Your task to perform on an android device: visit the assistant section in the google photos Image 0: 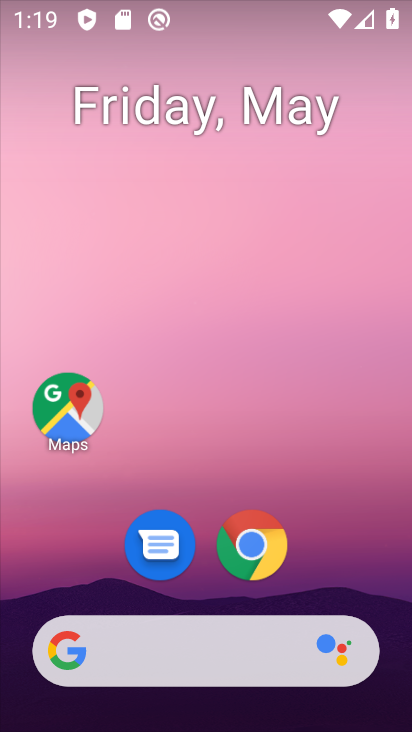
Step 0: drag from (337, 610) to (195, 7)
Your task to perform on an android device: visit the assistant section in the google photos Image 1: 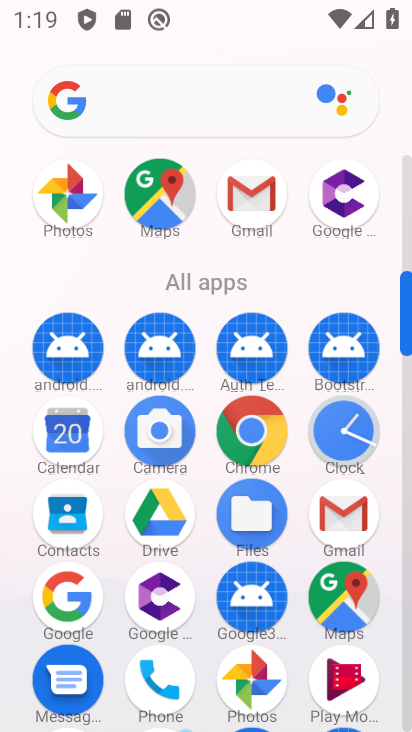
Step 1: click (264, 657)
Your task to perform on an android device: visit the assistant section in the google photos Image 2: 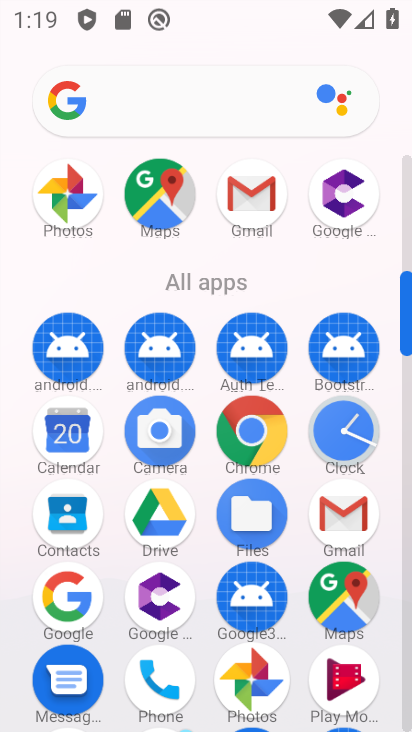
Step 2: click (264, 657)
Your task to perform on an android device: visit the assistant section in the google photos Image 3: 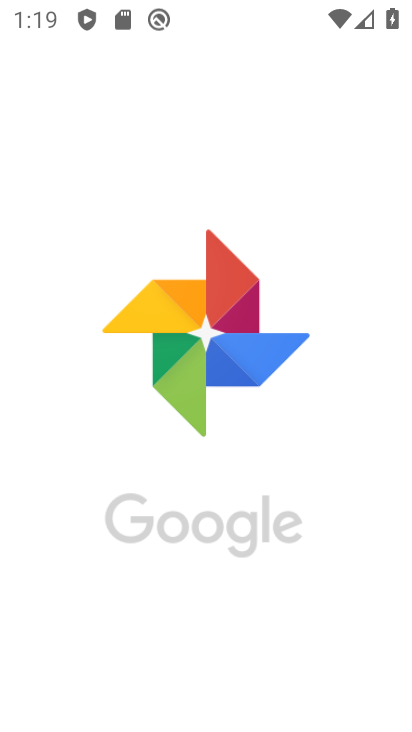
Step 3: click (263, 659)
Your task to perform on an android device: visit the assistant section in the google photos Image 4: 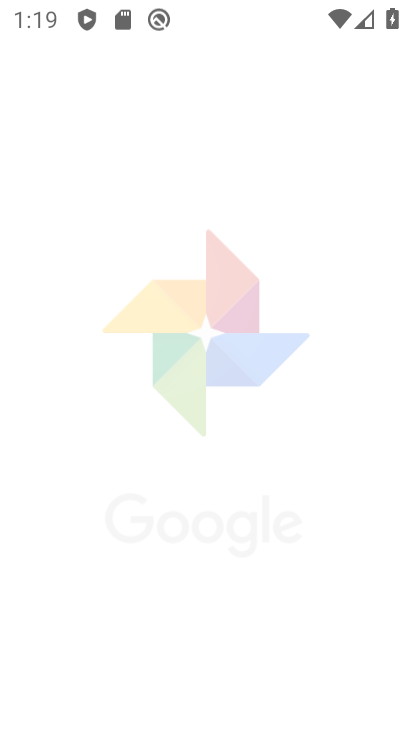
Step 4: click (256, 654)
Your task to perform on an android device: visit the assistant section in the google photos Image 5: 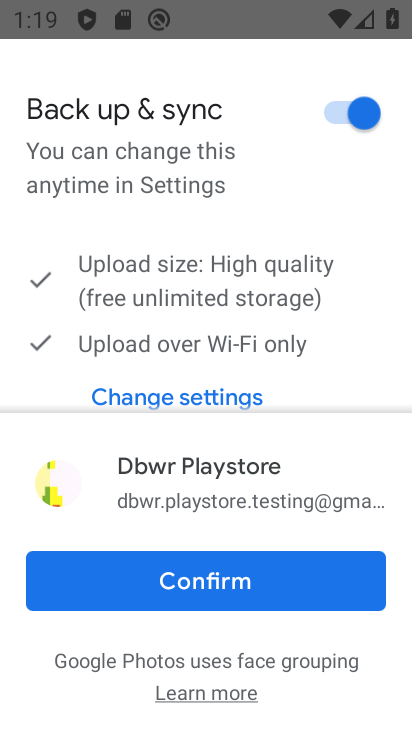
Step 5: click (225, 624)
Your task to perform on an android device: visit the assistant section in the google photos Image 6: 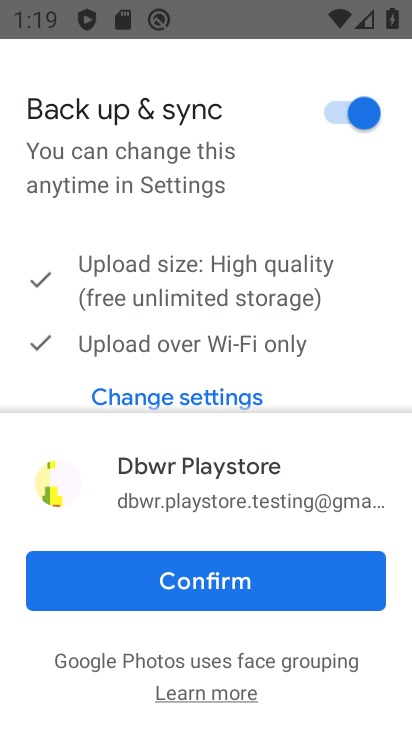
Step 6: click (219, 581)
Your task to perform on an android device: visit the assistant section in the google photos Image 7: 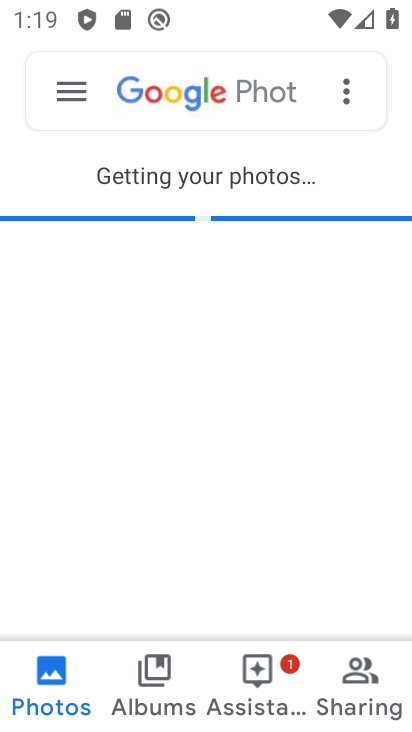
Step 7: click (258, 677)
Your task to perform on an android device: visit the assistant section in the google photos Image 8: 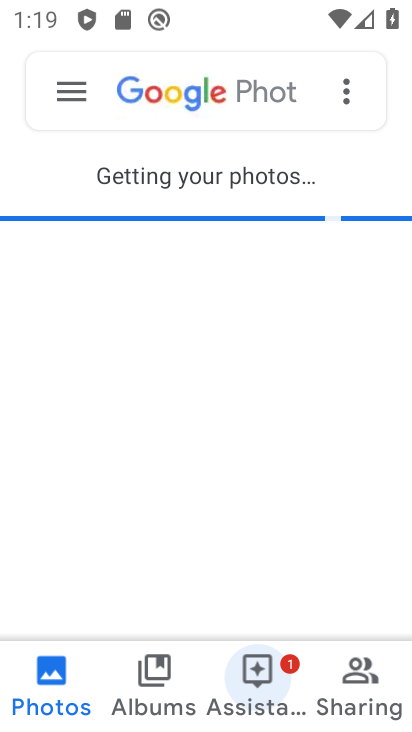
Step 8: click (256, 676)
Your task to perform on an android device: visit the assistant section in the google photos Image 9: 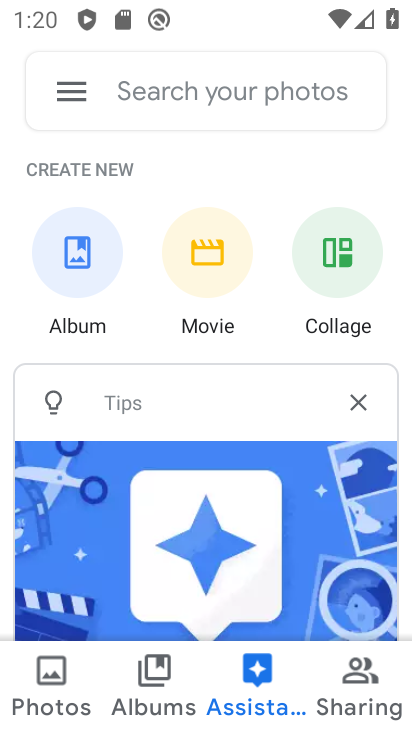
Step 9: task complete